Your task to perform on an android device: turn off picture-in-picture Image 0: 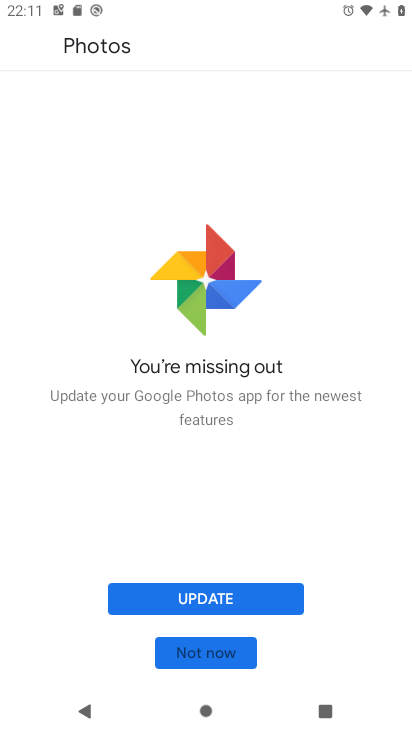
Step 0: press home button
Your task to perform on an android device: turn off picture-in-picture Image 1: 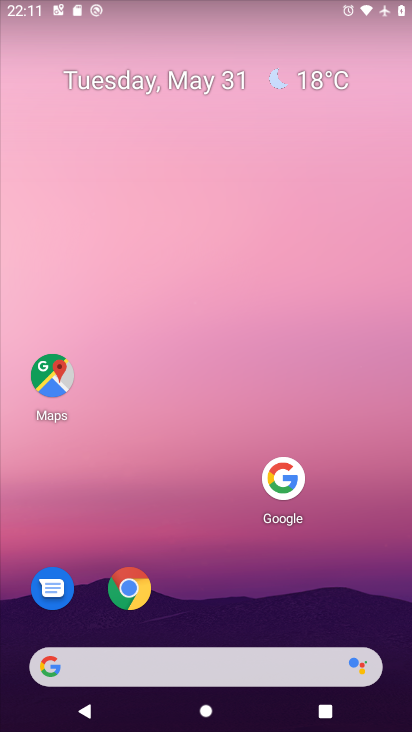
Step 1: click (132, 588)
Your task to perform on an android device: turn off picture-in-picture Image 2: 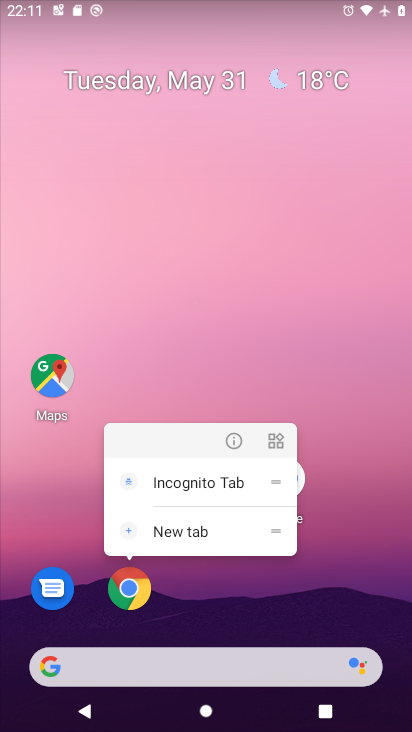
Step 2: click (231, 441)
Your task to perform on an android device: turn off picture-in-picture Image 3: 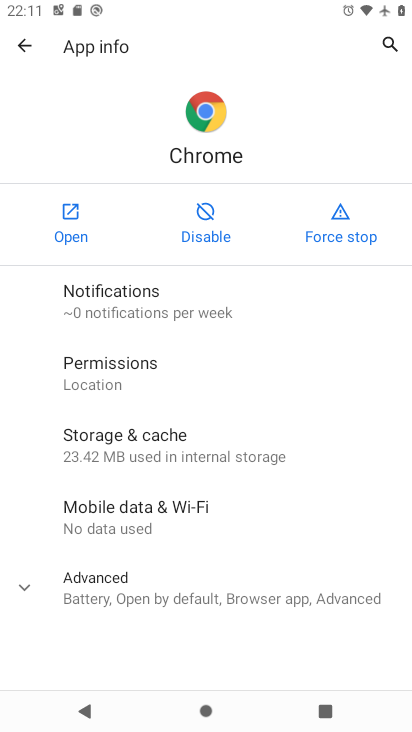
Step 3: click (107, 597)
Your task to perform on an android device: turn off picture-in-picture Image 4: 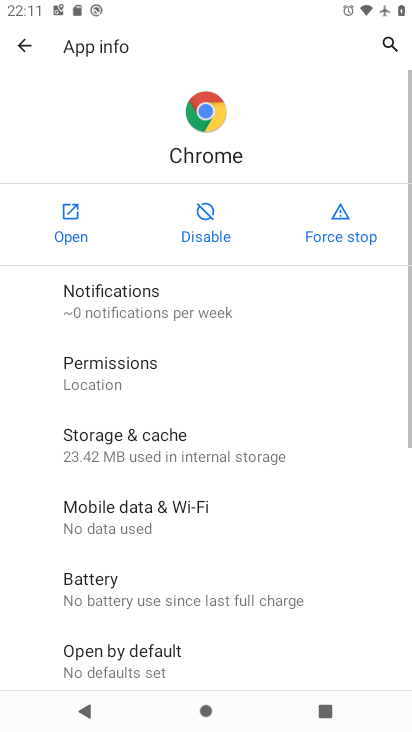
Step 4: drag from (222, 630) to (303, 203)
Your task to perform on an android device: turn off picture-in-picture Image 5: 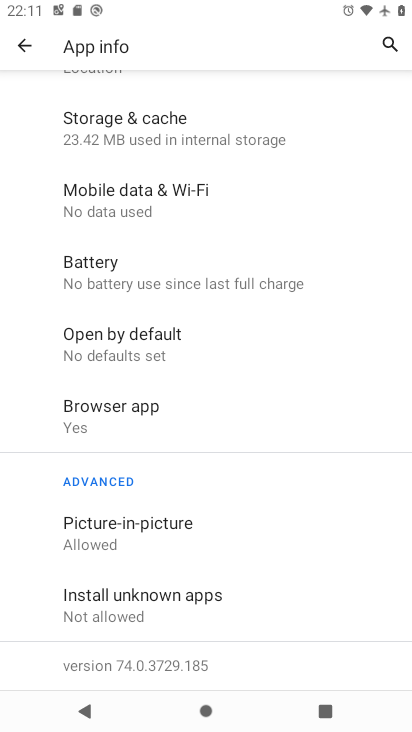
Step 5: click (117, 536)
Your task to perform on an android device: turn off picture-in-picture Image 6: 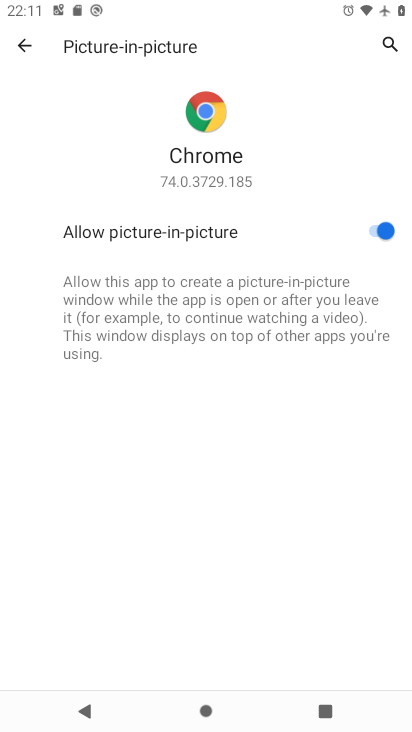
Step 6: click (371, 236)
Your task to perform on an android device: turn off picture-in-picture Image 7: 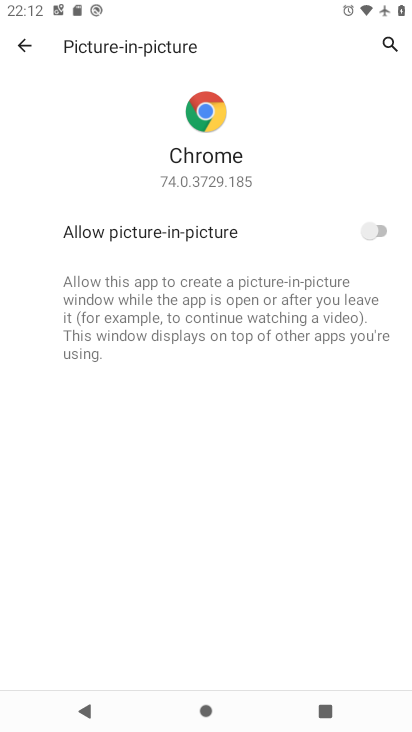
Step 7: task complete